Your task to perform on an android device: Open Chrome and go to the settings page Image 0: 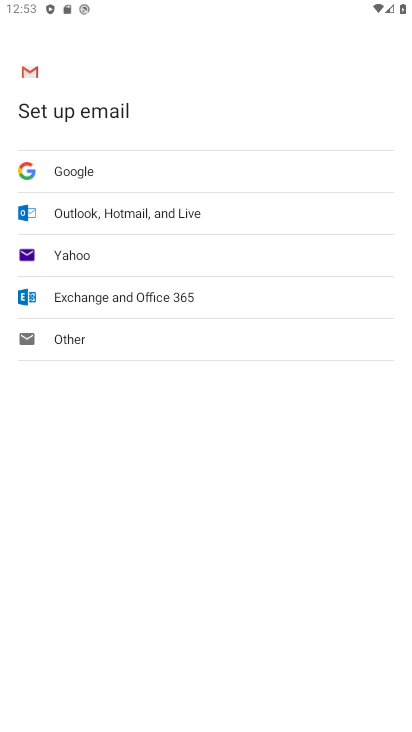
Step 0: press home button
Your task to perform on an android device: Open Chrome and go to the settings page Image 1: 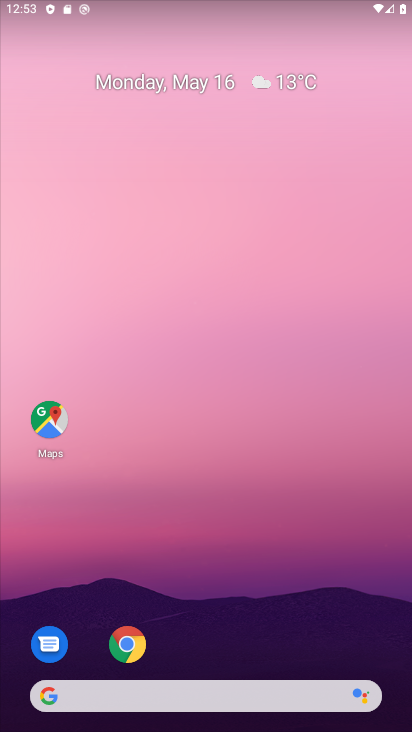
Step 1: drag from (287, 652) to (355, 165)
Your task to perform on an android device: Open Chrome and go to the settings page Image 2: 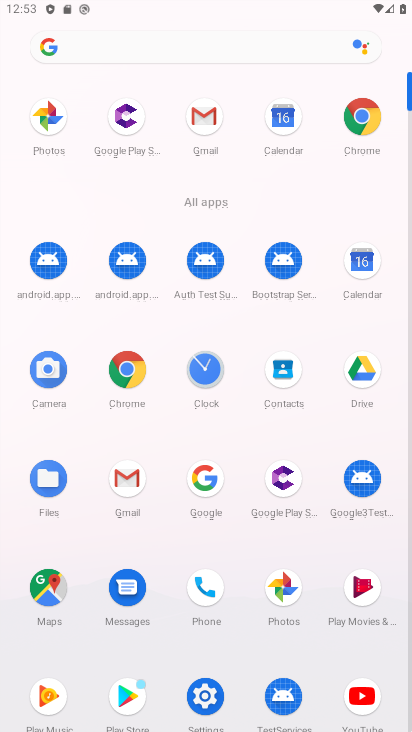
Step 2: click (365, 141)
Your task to perform on an android device: Open Chrome and go to the settings page Image 3: 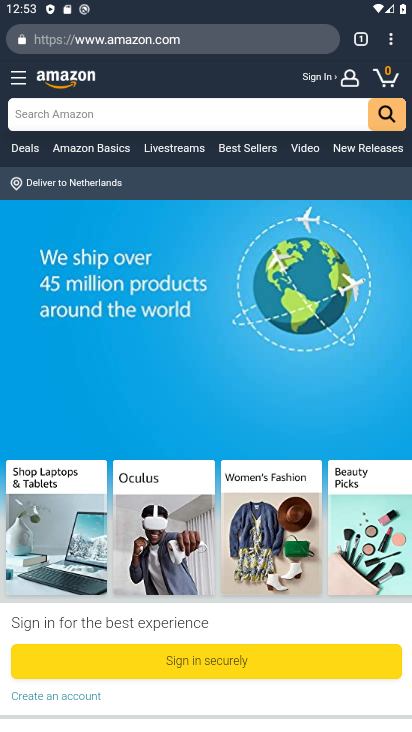
Step 3: click (400, 44)
Your task to perform on an android device: Open Chrome and go to the settings page Image 4: 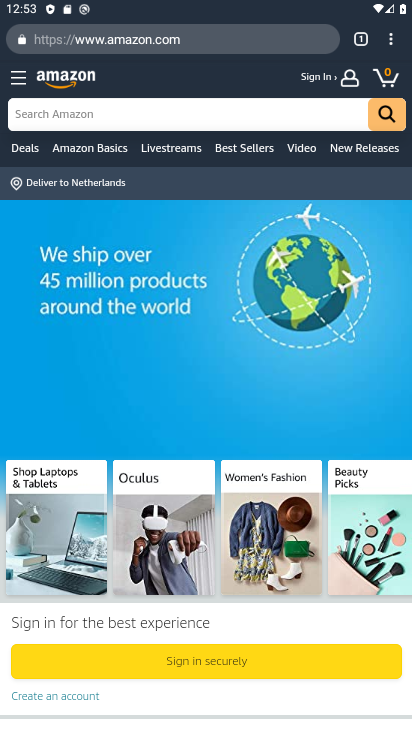
Step 4: click (391, 46)
Your task to perform on an android device: Open Chrome and go to the settings page Image 5: 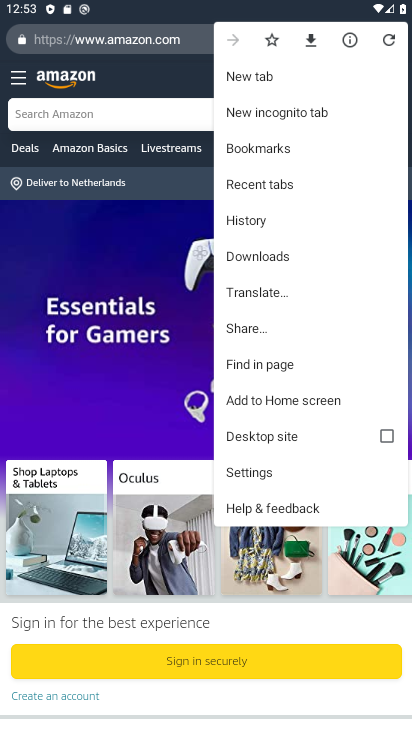
Step 5: click (279, 466)
Your task to perform on an android device: Open Chrome and go to the settings page Image 6: 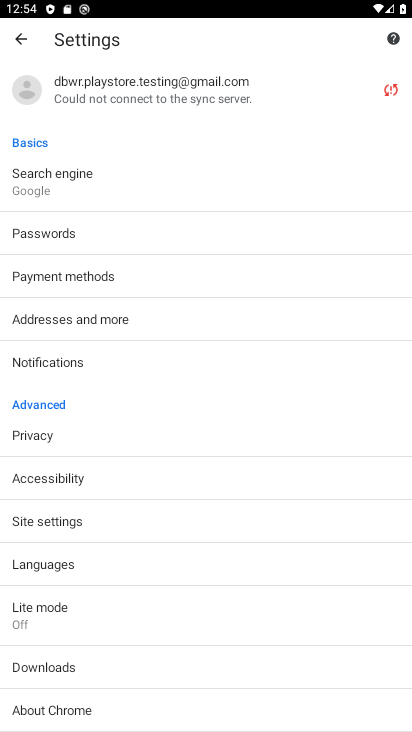
Step 6: task complete